Your task to perform on an android device: Open ESPN.com Image 0: 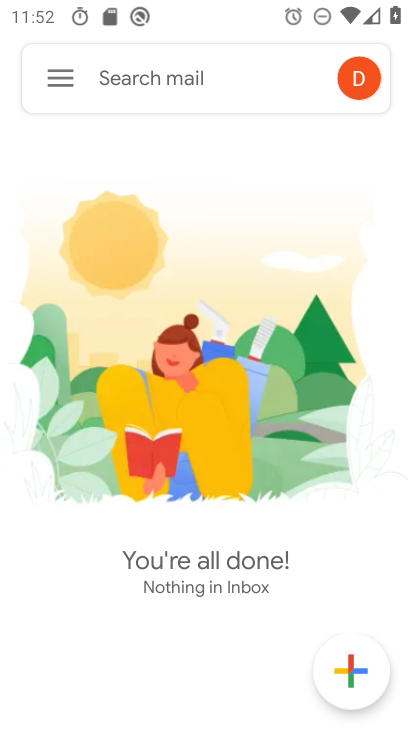
Step 0: press home button
Your task to perform on an android device: Open ESPN.com Image 1: 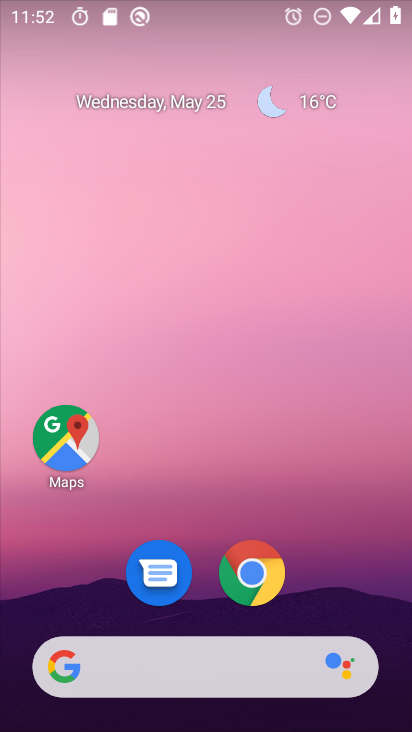
Step 1: click (242, 607)
Your task to perform on an android device: Open ESPN.com Image 2: 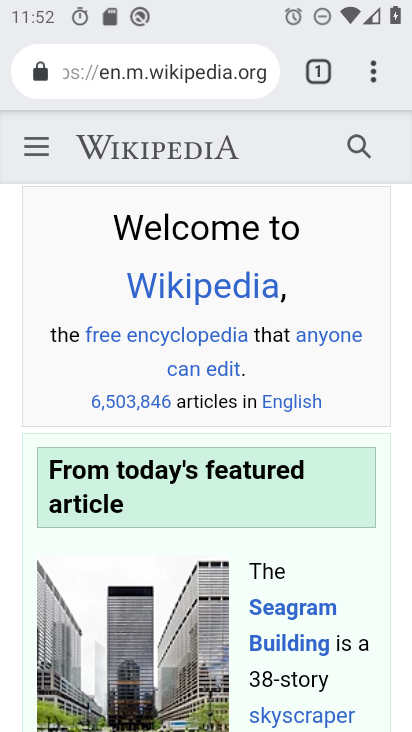
Step 2: click (118, 83)
Your task to perform on an android device: Open ESPN.com Image 3: 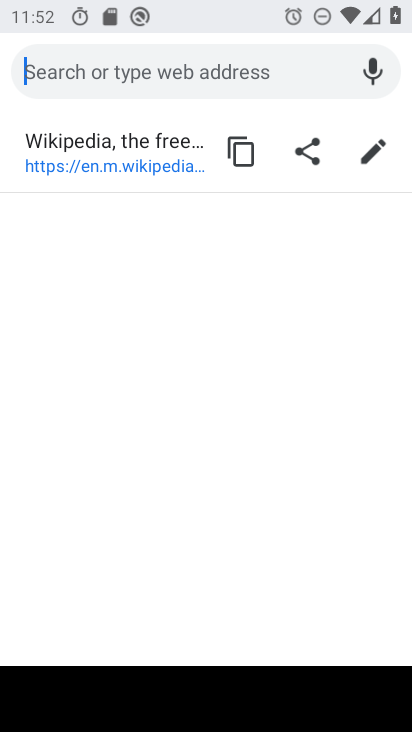
Step 3: type "espn.com"
Your task to perform on an android device: Open ESPN.com Image 4: 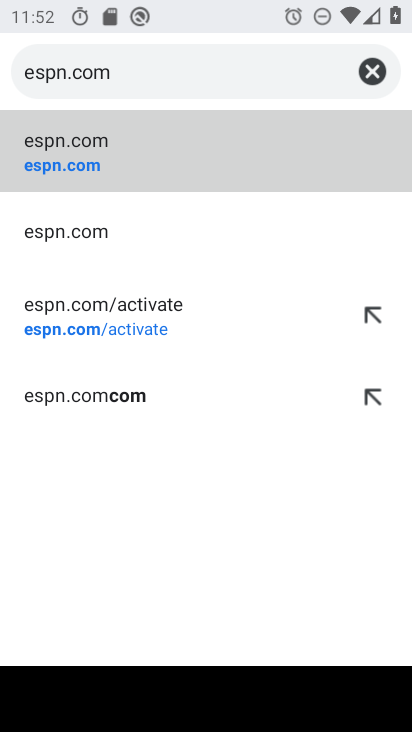
Step 4: click (46, 155)
Your task to perform on an android device: Open ESPN.com Image 5: 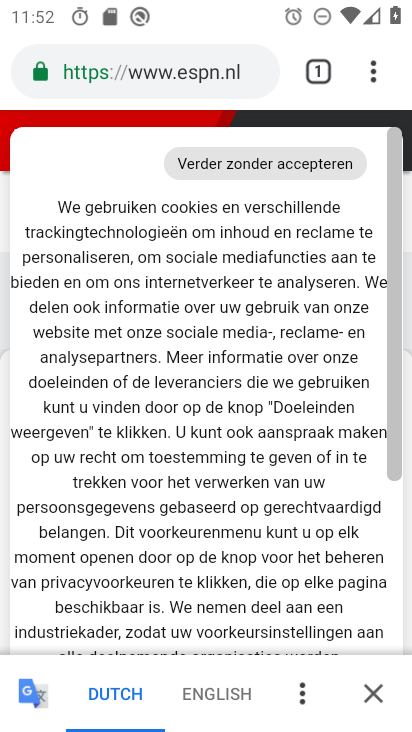
Step 5: task complete